Your task to perform on an android device: Search for Mexican restaurants on Maps Image 0: 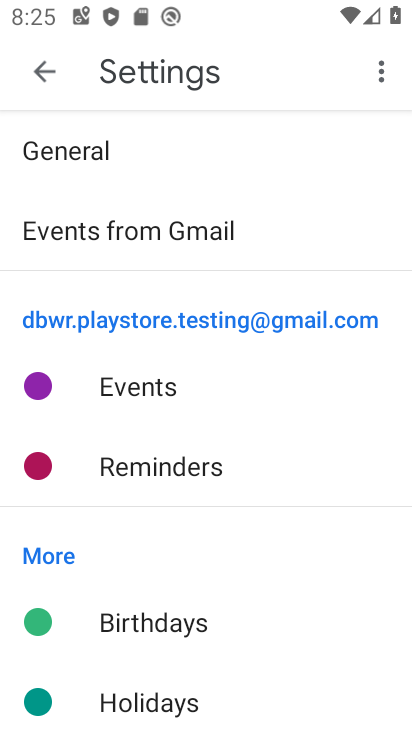
Step 0: press home button
Your task to perform on an android device: Search for Mexican restaurants on Maps Image 1: 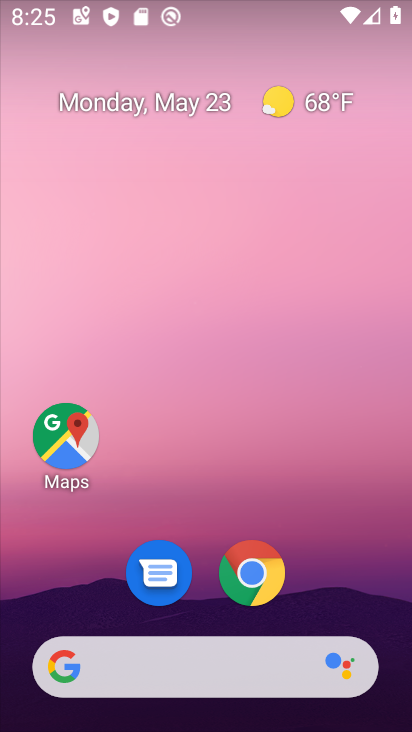
Step 1: drag from (269, 650) to (257, 124)
Your task to perform on an android device: Search for Mexican restaurants on Maps Image 2: 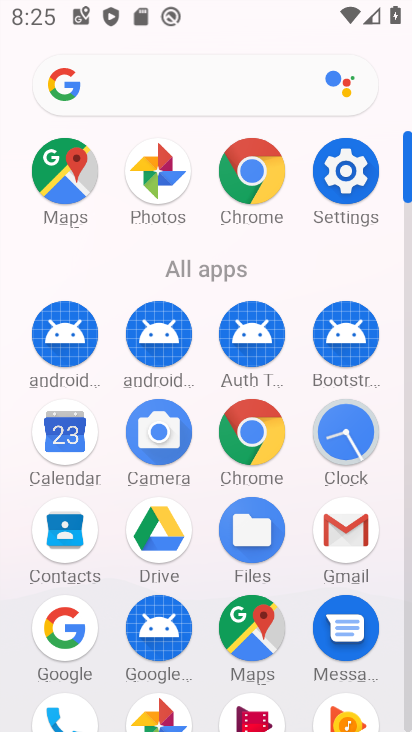
Step 2: click (71, 172)
Your task to perform on an android device: Search for Mexican restaurants on Maps Image 3: 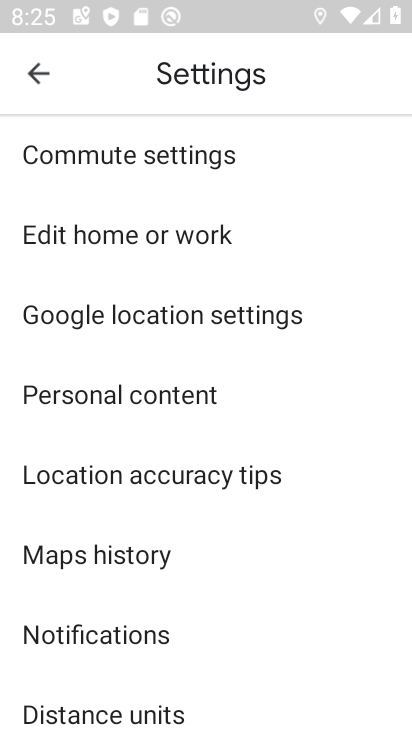
Step 3: click (43, 80)
Your task to perform on an android device: Search for Mexican restaurants on Maps Image 4: 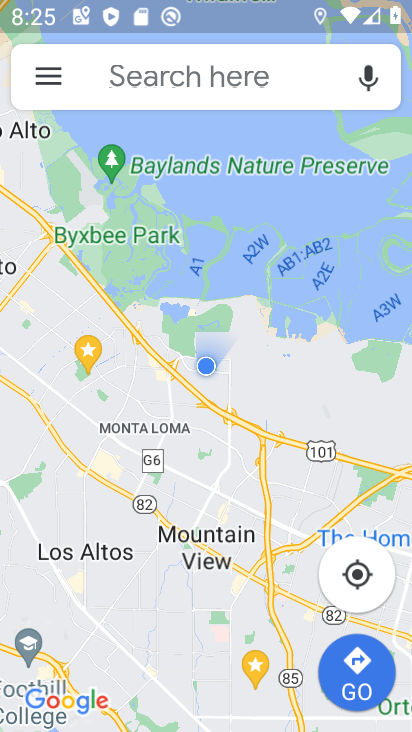
Step 4: click (151, 76)
Your task to perform on an android device: Search for Mexican restaurants on Maps Image 5: 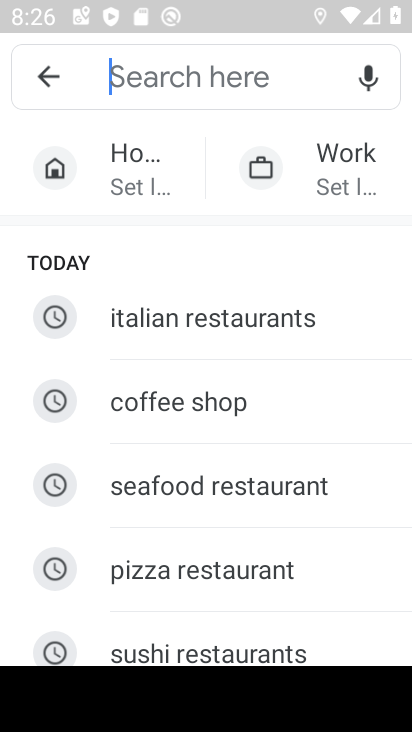
Step 5: drag from (205, 563) to (242, 139)
Your task to perform on an android device: Search for Mexican restaurants on Maps Image 6: 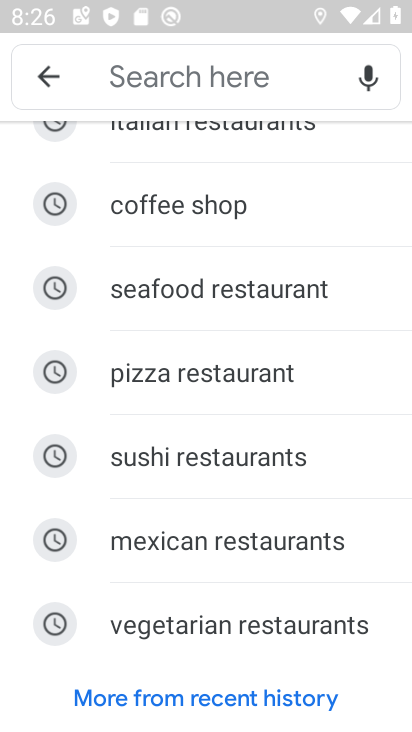
Step 6: click (261, 540)
Your task to perform on an android device: Search for Mexican restaurants on Maps Image 7: 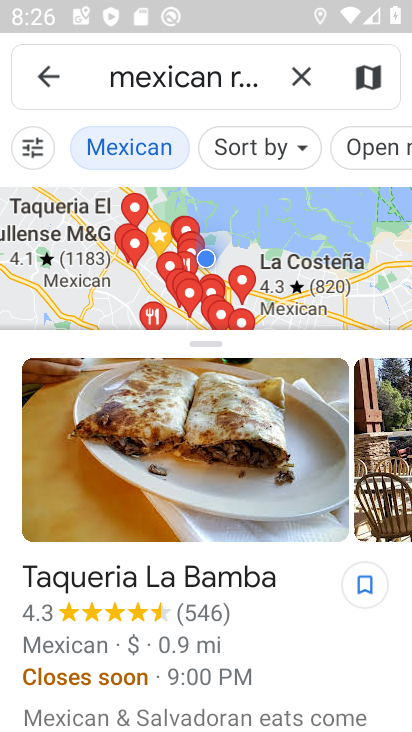
Step 7: task complete